Your task to perform on an android device: open the mobile data screen to see how much data has been used Image 0: 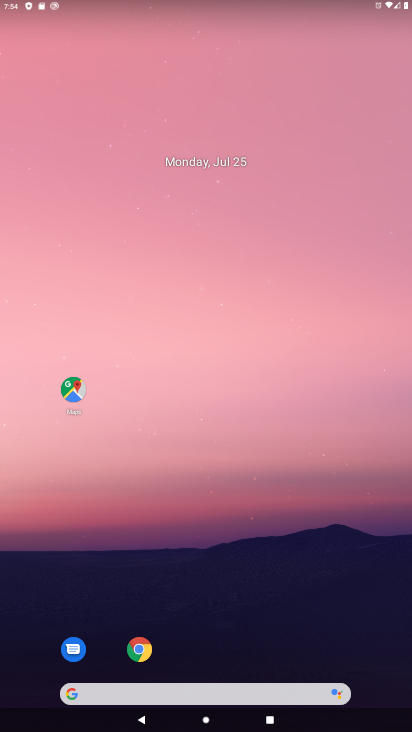
Step 0: drag from (316, 643) to (275, 250)
Your task to perform on an android device: open the mobile data screen to see how much data has been used Image 1: 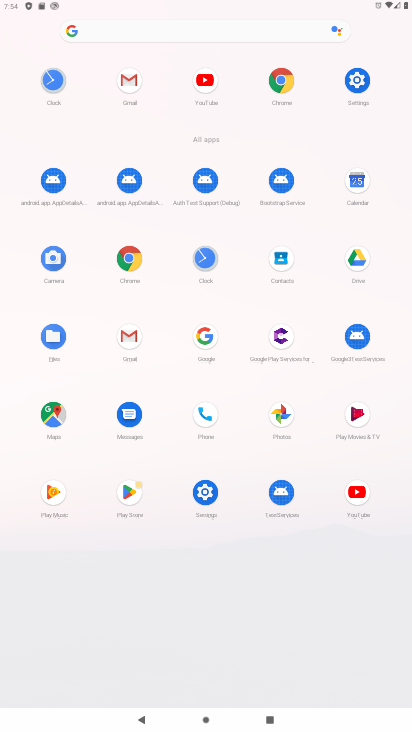
Step 1: click (206, 491)
Your task to perform on an android device: open the mobile data screen to see how much data has been used Image 2: 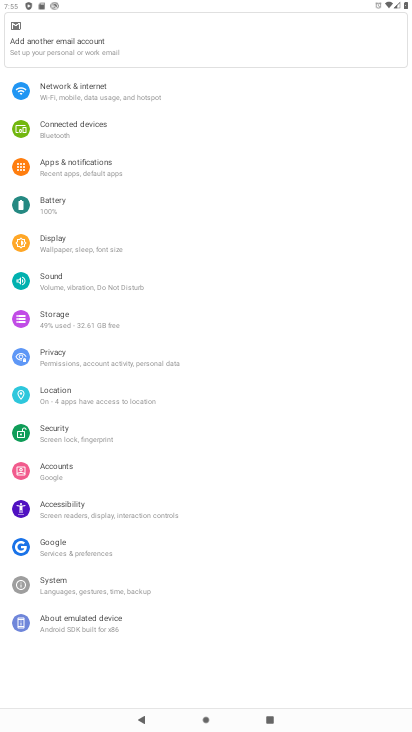
Step 2: click (67, 84)
Your task to perform on an android device: open the mobile data screen to see how much data has been used Image 3: 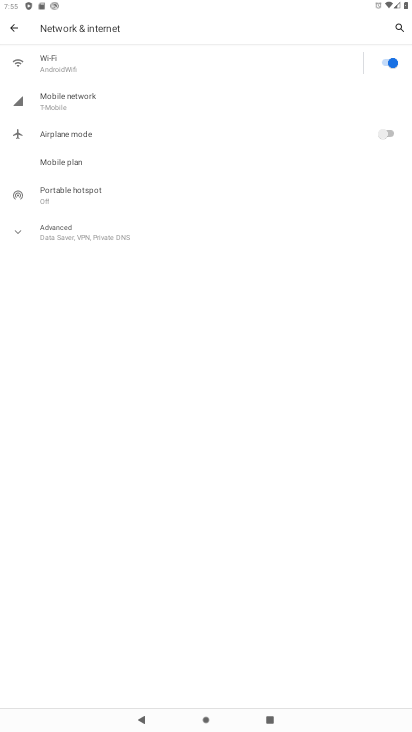
Step 3: click (67, 98)
Your task to perform on an android device: open the mobile data screen to see how much data has been used Image 4: 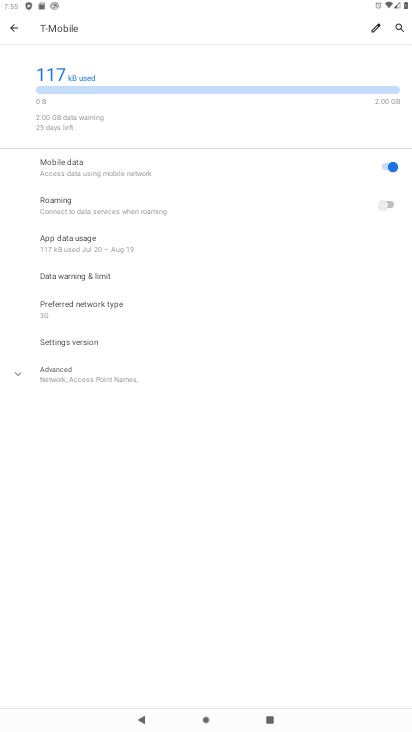
Step 4: task complete